Your task to perform on an android device: Open Amazon Image 0: 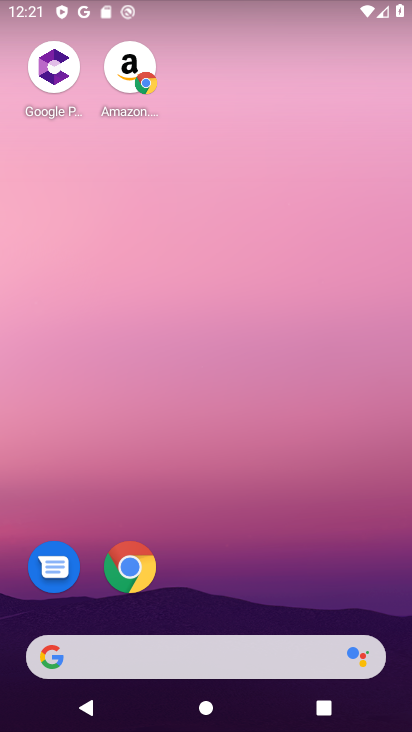
Step 0: click (129, 565)
Your task to perform on an android device: Open Amazon Image 1: 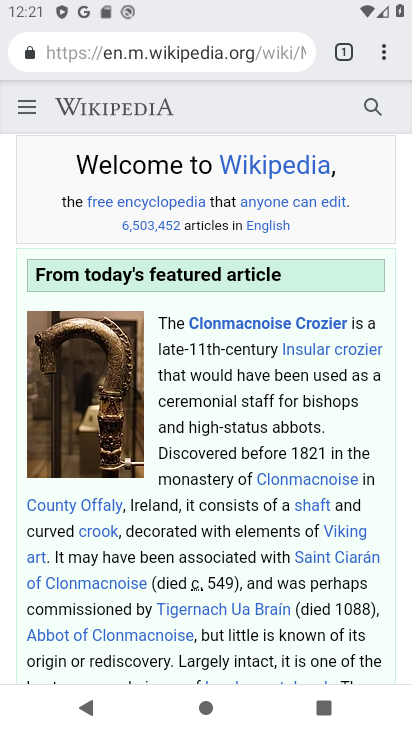
Step 1: click (264, 62)
Your task to perform on an android device: Open Amazon Image 2: 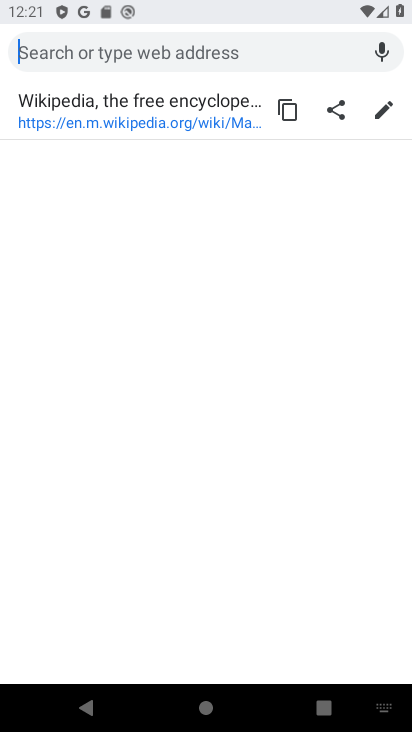
Step 2: type "Amazon"
Your task to perform on an android device: Open Amazon Image 3: 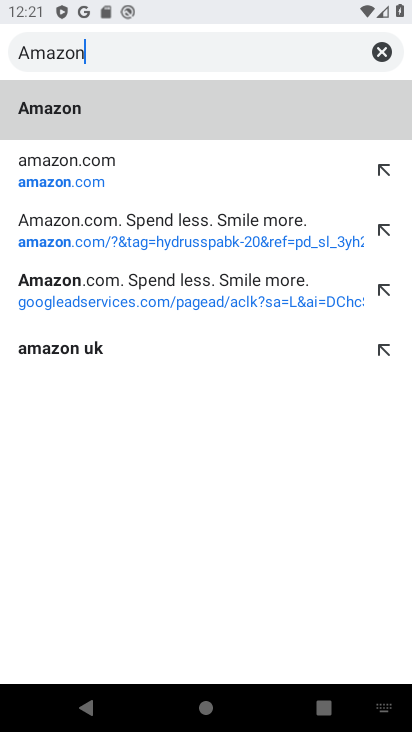
Step 3: click (70, 107)
Your task to perform on an android device: Open Amazon Image 4: 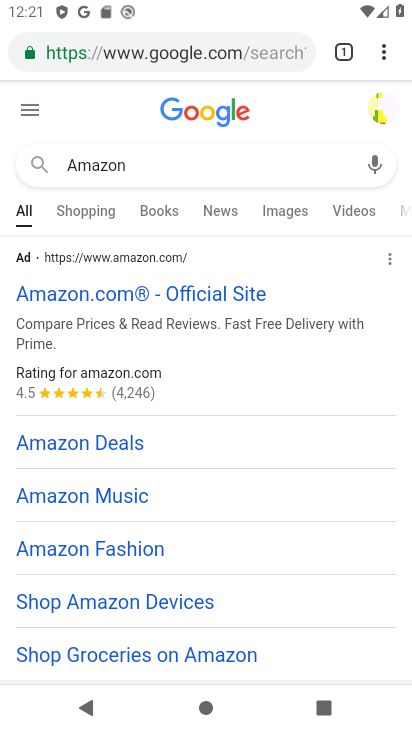
Step 4: click (83, 313)
Your task to perform on an android device: Open Amazon Image 5: 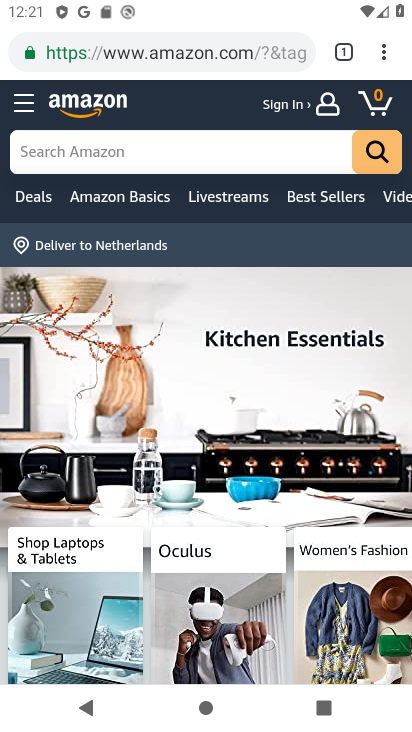
Step 5: task complete